Your task to perform on an android device: What's the weather going to be tomorrow? Image 0: 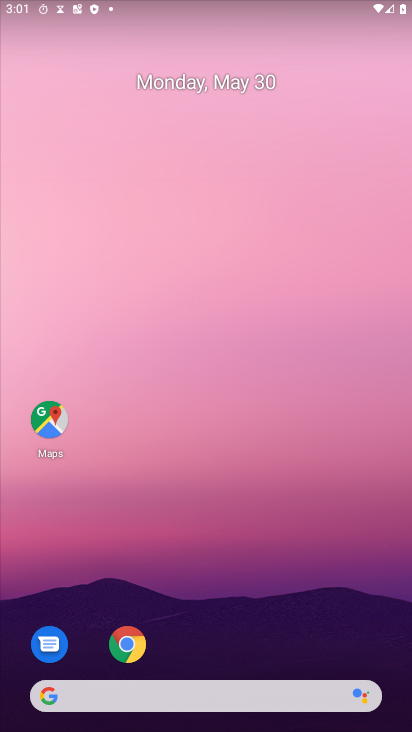
Step 0: press home button
Your task to perform on an android device: What's the weather going to be tomorrow? Image 1: 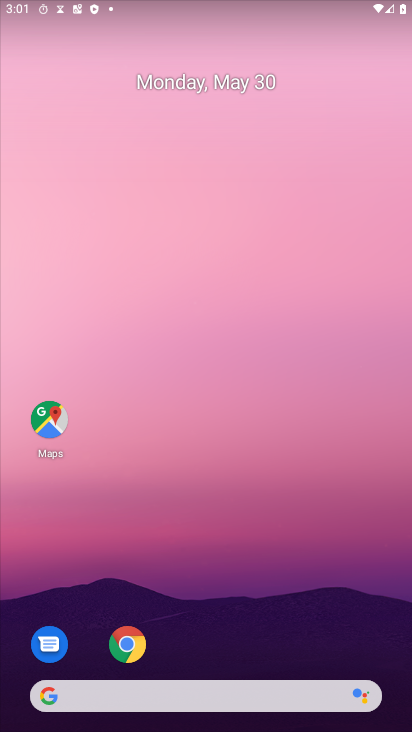
Step 1: click (48, 705)
Your task to perform on an android device: What's the weather going to be tomorrow? Image 2: 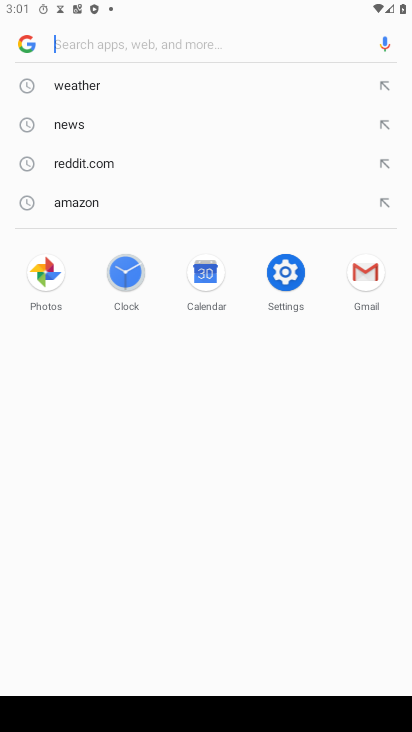
Step 2: type "weather going to be tomorrow?"
Your task to perform on an android device: What's the weather going to be tomorrow? Image 3: 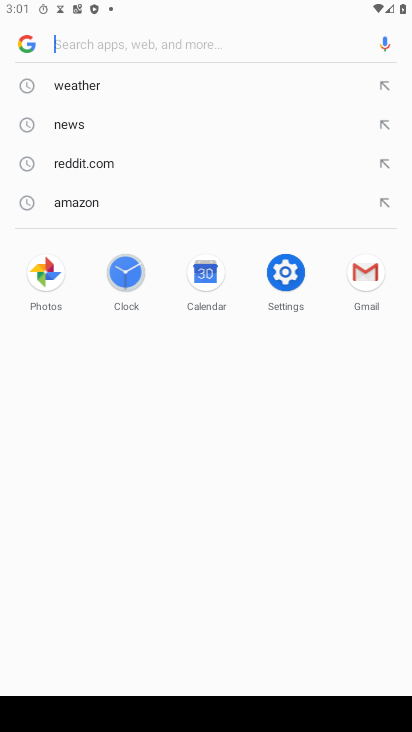
Step 3: click (149, 41)
Your task to perform on an android device: What's the weather going to be tomorrow? Image 4: 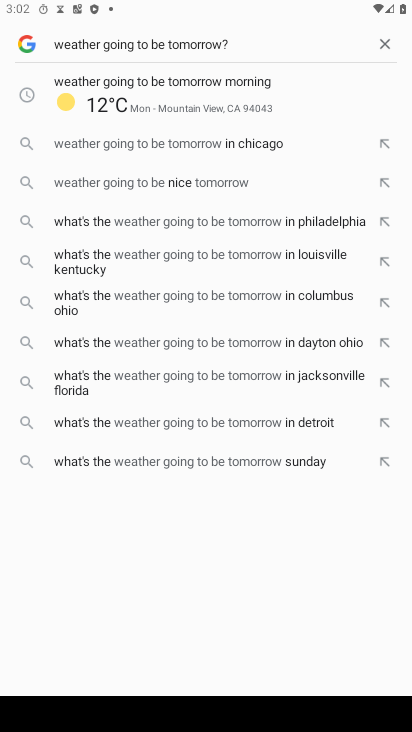
Step 4: click (169, 81)
Your task to perform on an android device: What's the weather going to be tomorrow? Image 5: 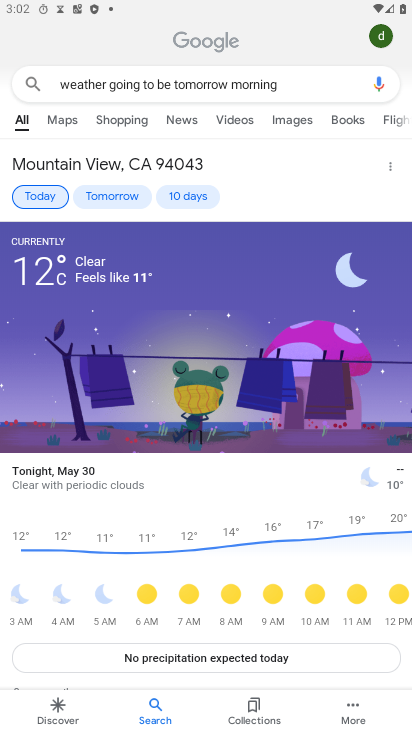
Step 5: task complete